Your task to perform on an android device: turn off javascript in the chrome app Image 0: 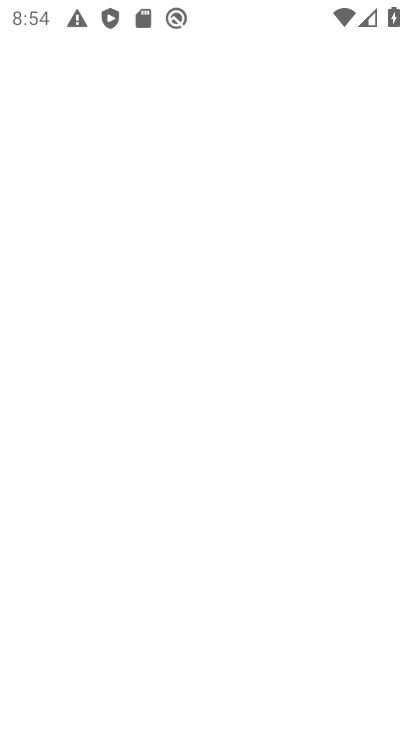
Step 0: drag from (278, 669) to (331, 18)
Your task to perform on an android device: turn off javascript in the chrome app Image 1: 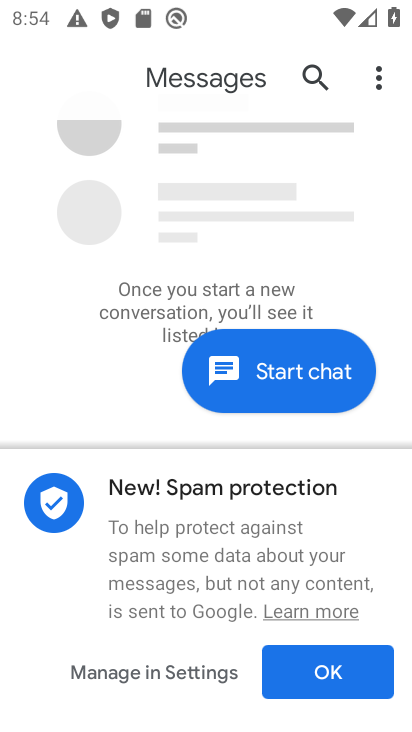
Step 1: press home button
Your task to perform on an android device: turn off javascript in the chrome app Image 2: 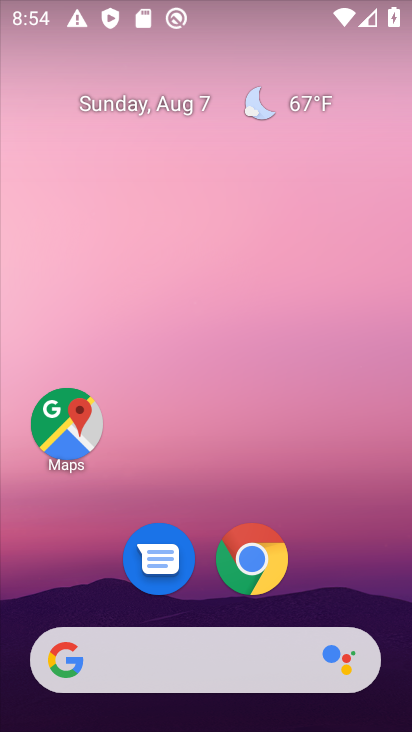
Step 2: drag from (147, 654) to (188, 97)
Your task to perform on an android device: turn off javascript in the chrome app Image 3: 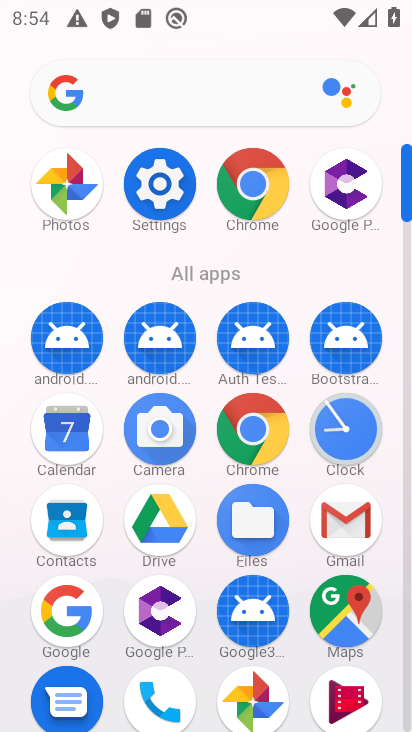
Step 3: click (237, 434)
Your task to perform on an android device: turn off javascript in the chrome app Image 4: 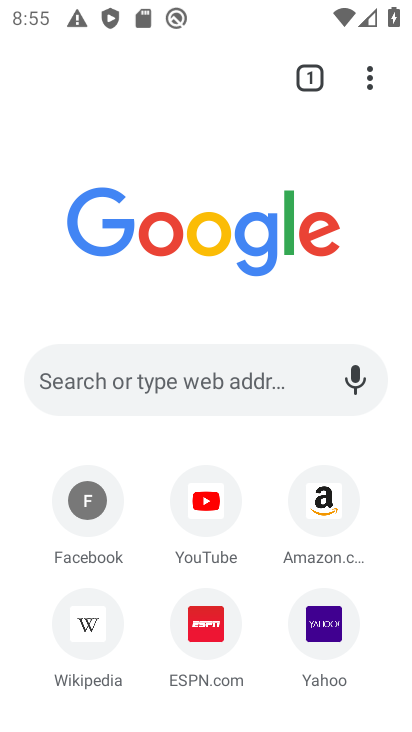
Step 4: click (368, 71)
Your task to perform on an android device: turn off javascript in the chrome app Image 5: 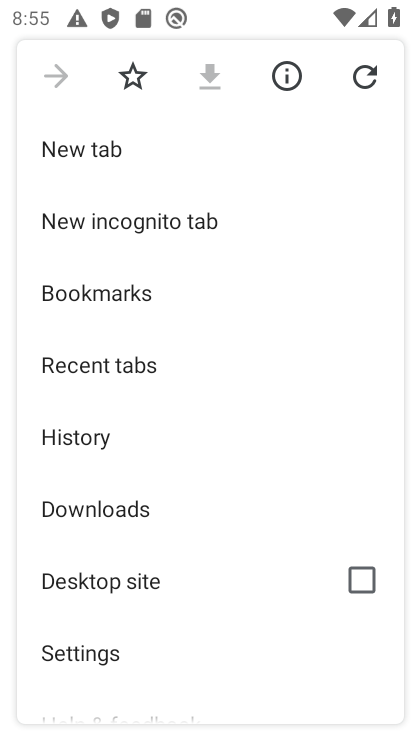
Step 5: click (136, 645)
Your task to perform on an android device: turn off javascript in the chrome app Image 6: 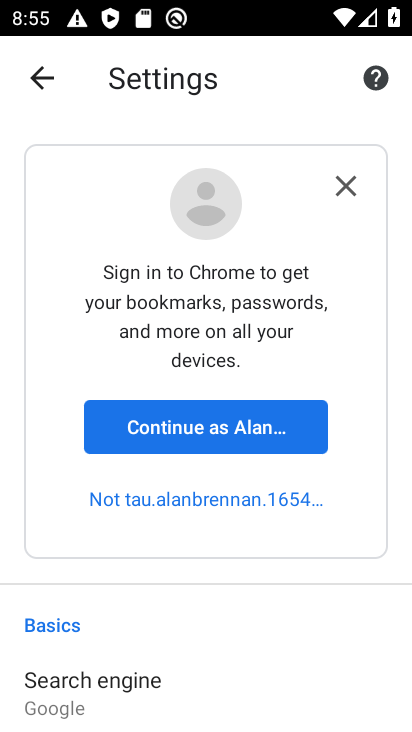
Step 6: drag from (259, 645) to (286, 325)
Your task to perform on an android device: turn off javascript in the chrome app Image 7: 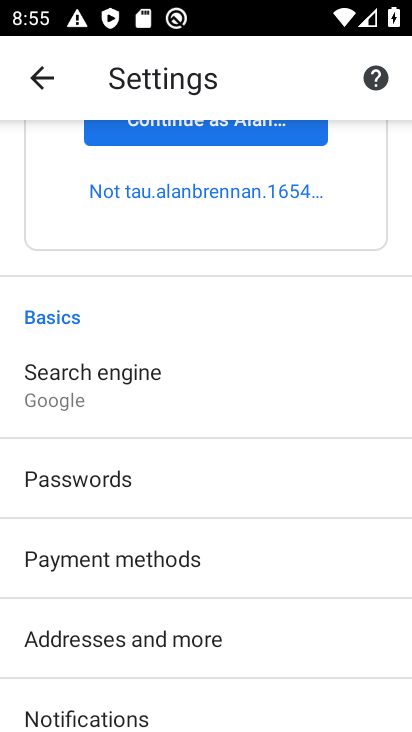
Step 7: drag from (313, 365) to (313, 108)
Your task to perform on an android device: turn off javascript in the chrome app Image 8: 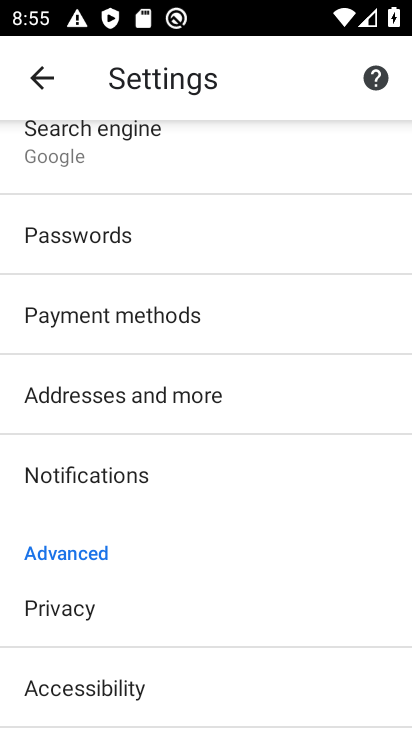
Step 8: drag from (332, 579) to (346, 319)
Your task to perform on an android device: turn off javascript in the chrome app Image 9: 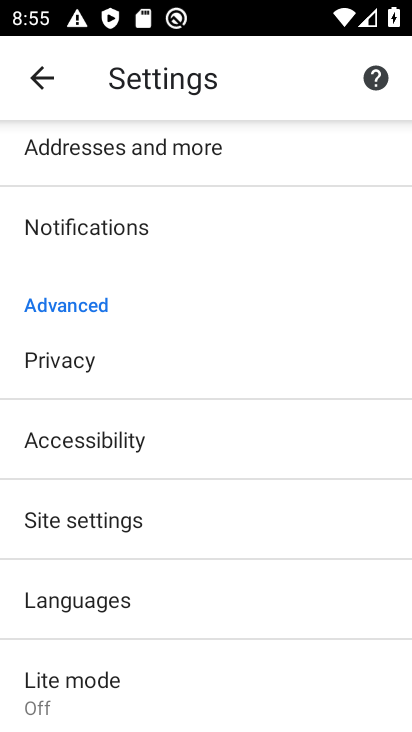
Step 9: click (199, 515)
Your task to perform on an android device: turn off javascript in the chrome app Image 10: 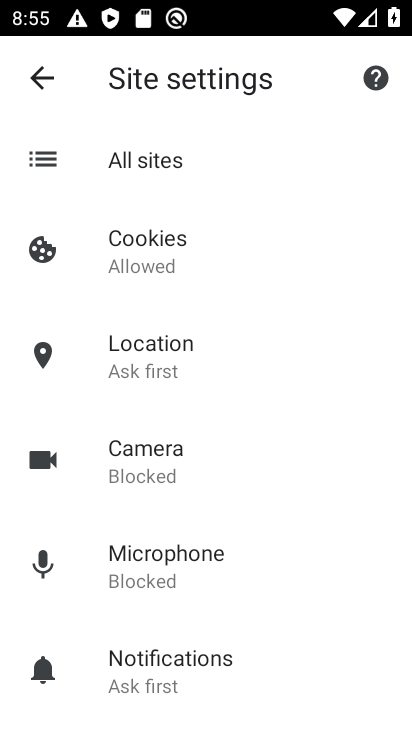
Step 10: drag from (328, 577) to (347, 219)
Your task to perform on an android device: turn off javascript in the chrome app Image 11: 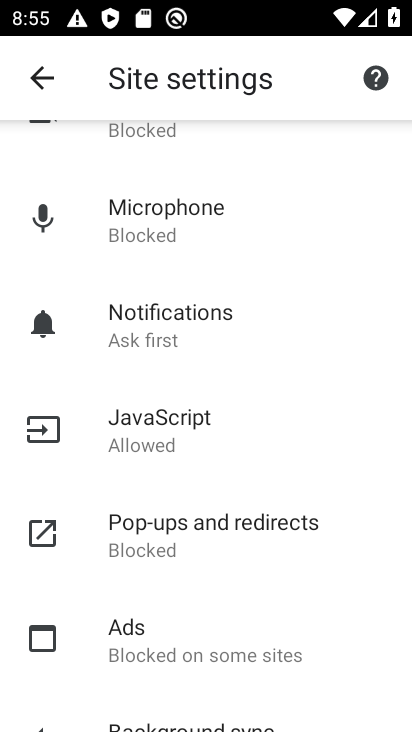
Step 11: click (210, 427)
Your task to perform on an android device: turn off javascript in the chrome app Image 12: 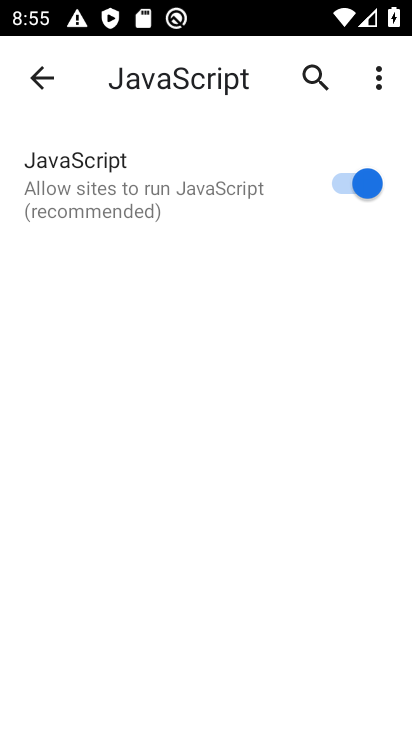
Step 12: click (353, 177)
Your task to perform on an android device: turn off javascript in the chrome app Image 13: 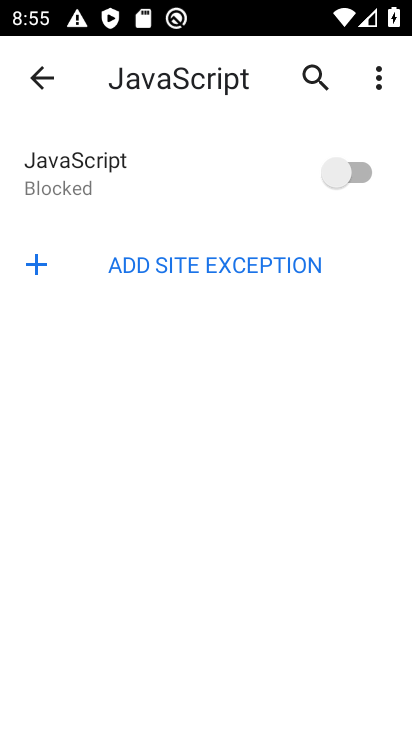
Step 13: task complete